Your task to perform on an android device: turn off smart reply in the gmail app Image 0: 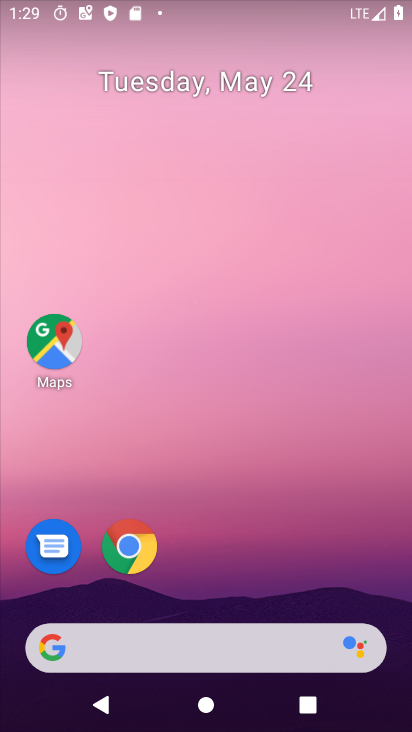
Step 0: drag from (217, 582) to (294, 146)
Your task to perform on an android device: turn off smart reply in the gmail app Image 1: 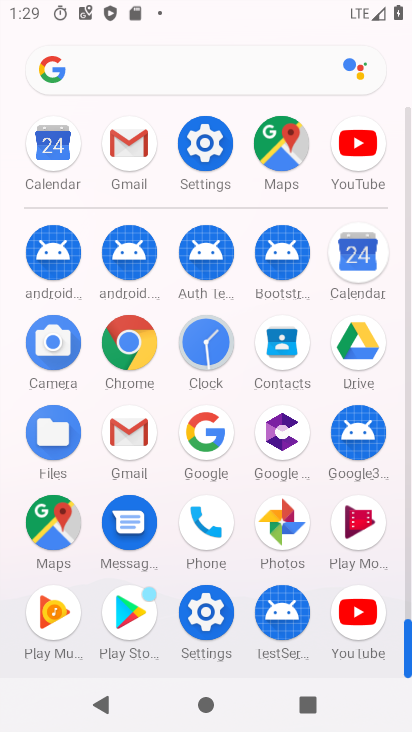
Step 1: click (135, 432)
Your task to perform on an android device: turn off smart reply in the gmail app Image 2: 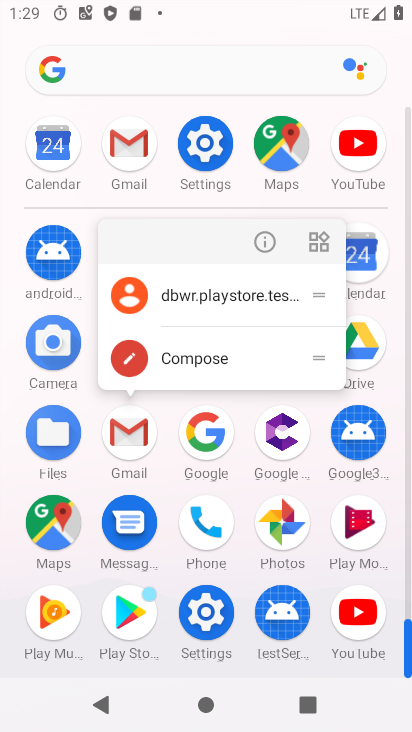
Step 2: click (264, 224)
Your task to perform on an android device: turn off smart reply in the gmail app Image 3: 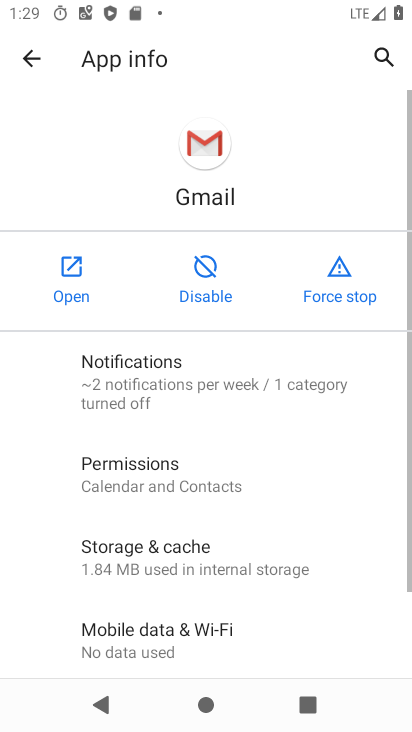
Step 3: click (87, 269)
Your task to perform on an android device: turn off smart reply in the gmail app Image 4: 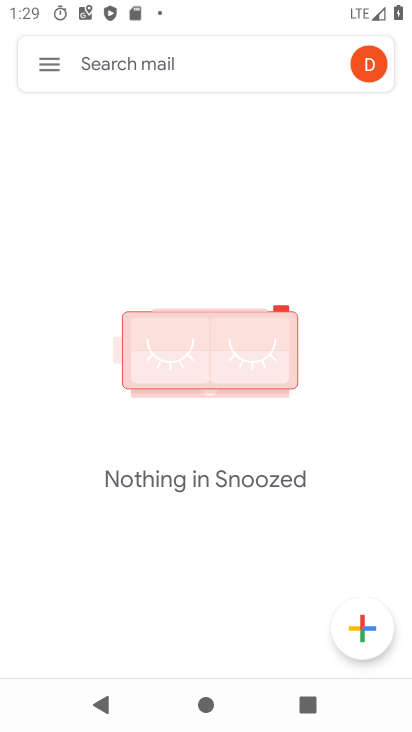
Step 4: click (46, 79)
Your task to perform on an android device: turn off smart reply in the gmail app Image 5: 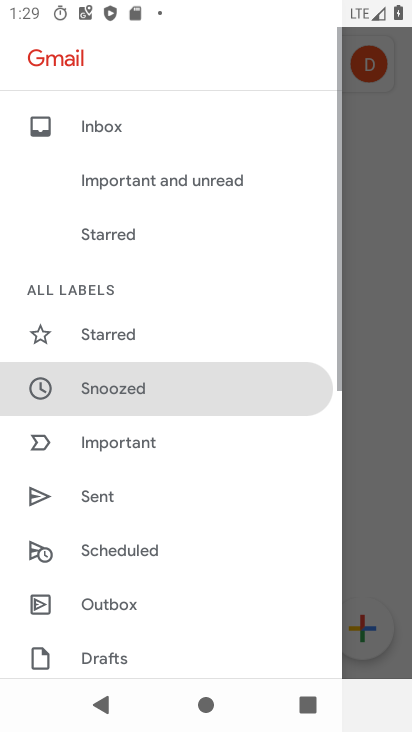
Step 5: drag from (204, 598) to (347, 5)
Your task to perform on an android device: turn off smart reply in the gmail app Image 6: 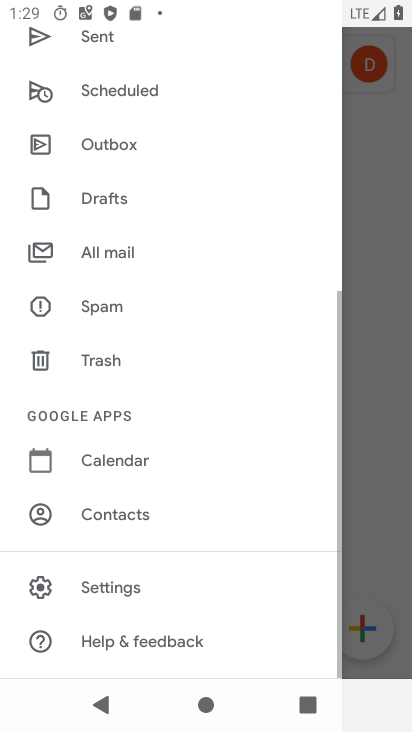
Step 6: click (112, 591)
Your task to perform on an android device: turn off smart reply in the gmail app Image 7: 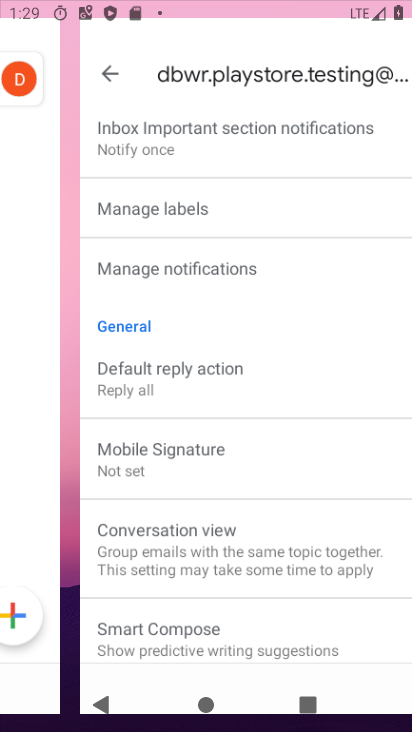
Step 7: drag from (112, 589) to (219, 142)
Your task to perform on an android device: turn off smart reply in the gmail app Image 8: 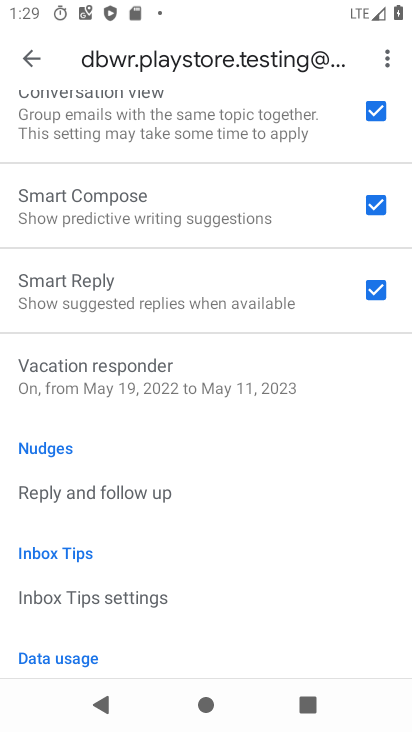
Step 8: drag from (149, 564) to (226, 204)
Your task to perform on an android device: turn off smart reply in the gmail app Image 9: 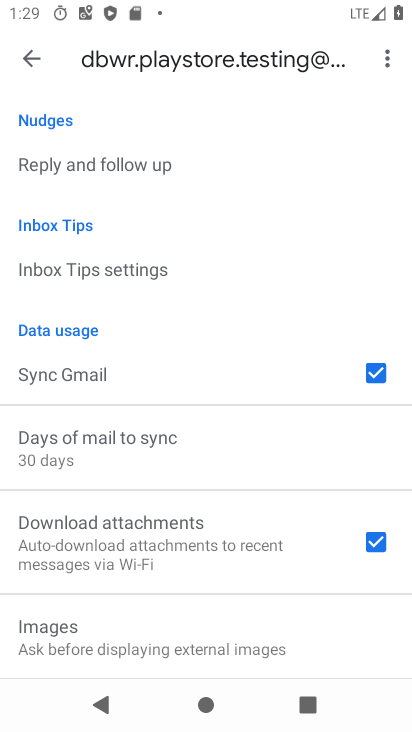
Step 9: drag from (209, 519) to (276, 724)
Your task to perform on an android device: turn off smart reply in the gmail app Image 10: 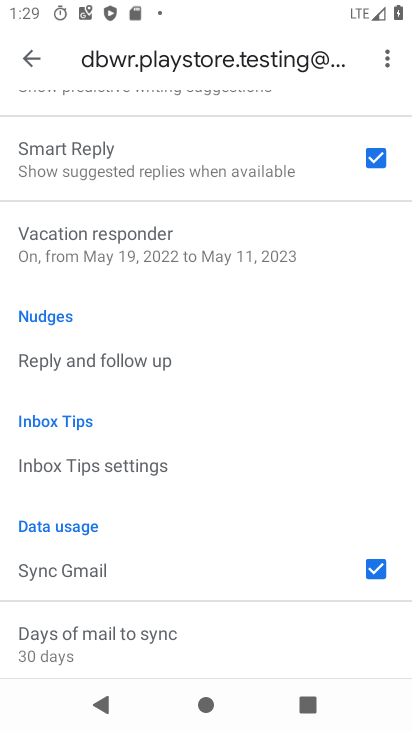
Step 10: click (365, 159)
Your task to perform on an android device: turn off smart reply in the gmail app Image 11: 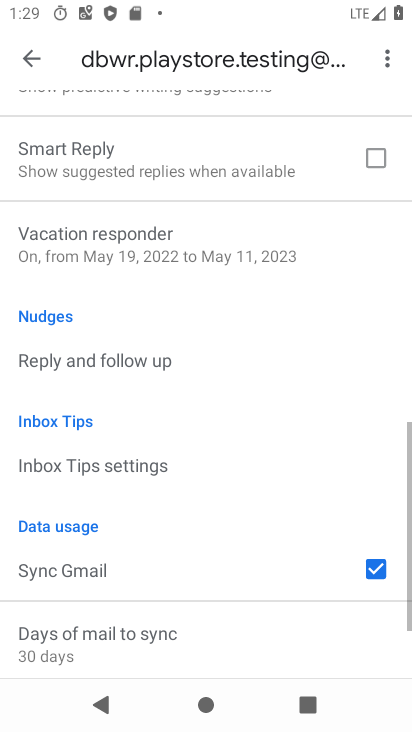
Step 11: task complete